Your task to perform on an android device: uninstall "WhatsApp Messenger" Image 0: 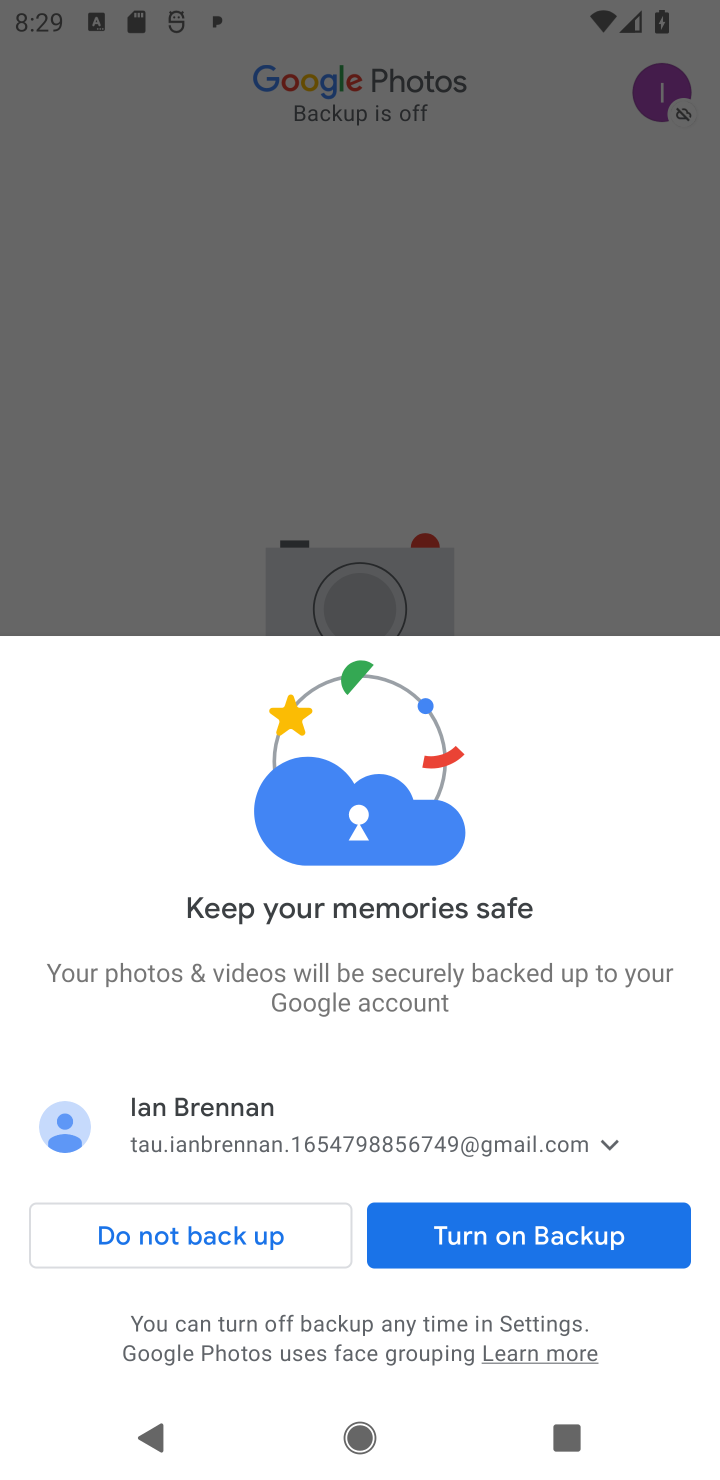
Step 0: press home button
Your task to perform on an android device: uninstall "WhatsApp Messenger" Image 1: 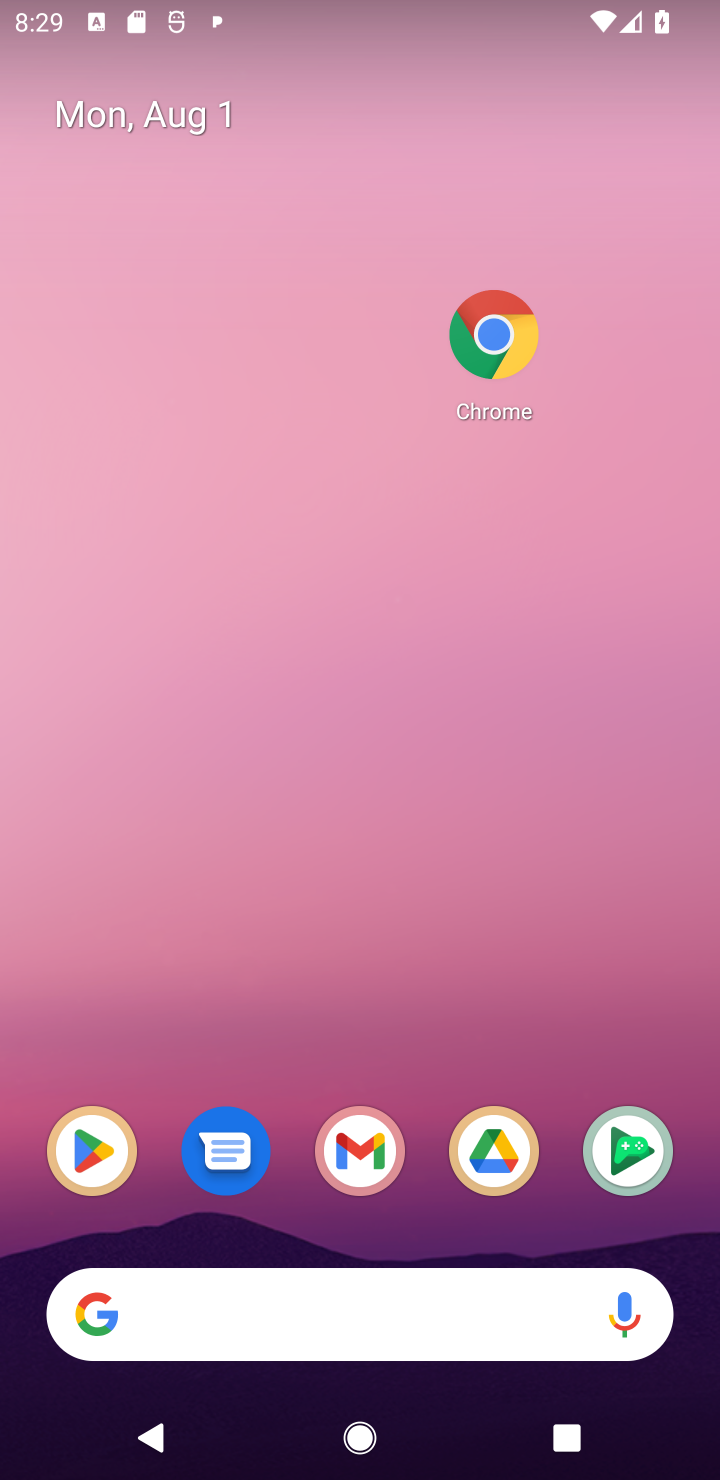
Step 1: click (95, 1163)
Your task to perform on an android device: uninstall "WhatsApp Messenger" Image 2: 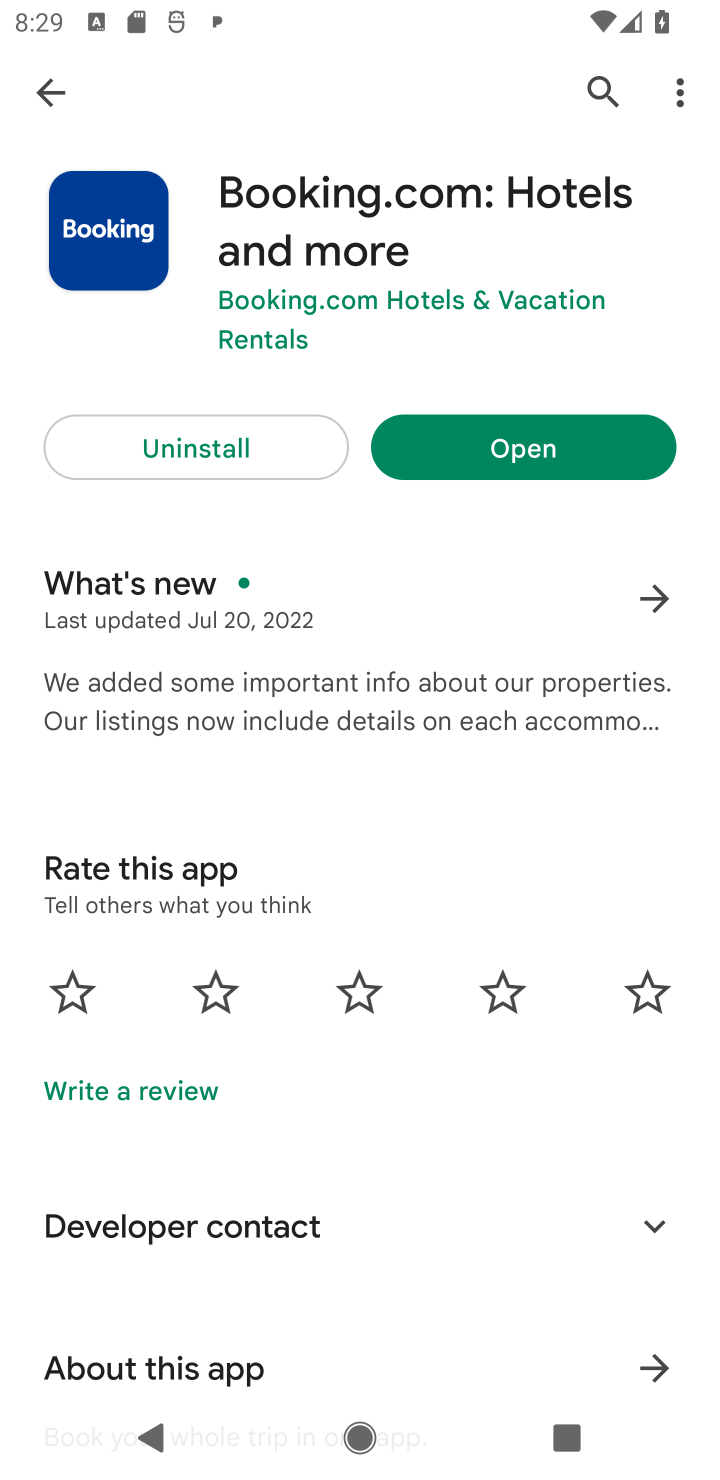
Step 2: click (590, 84)
Your task to perform on an android device: uninstall "WhatsApp Messenger" Image 3: 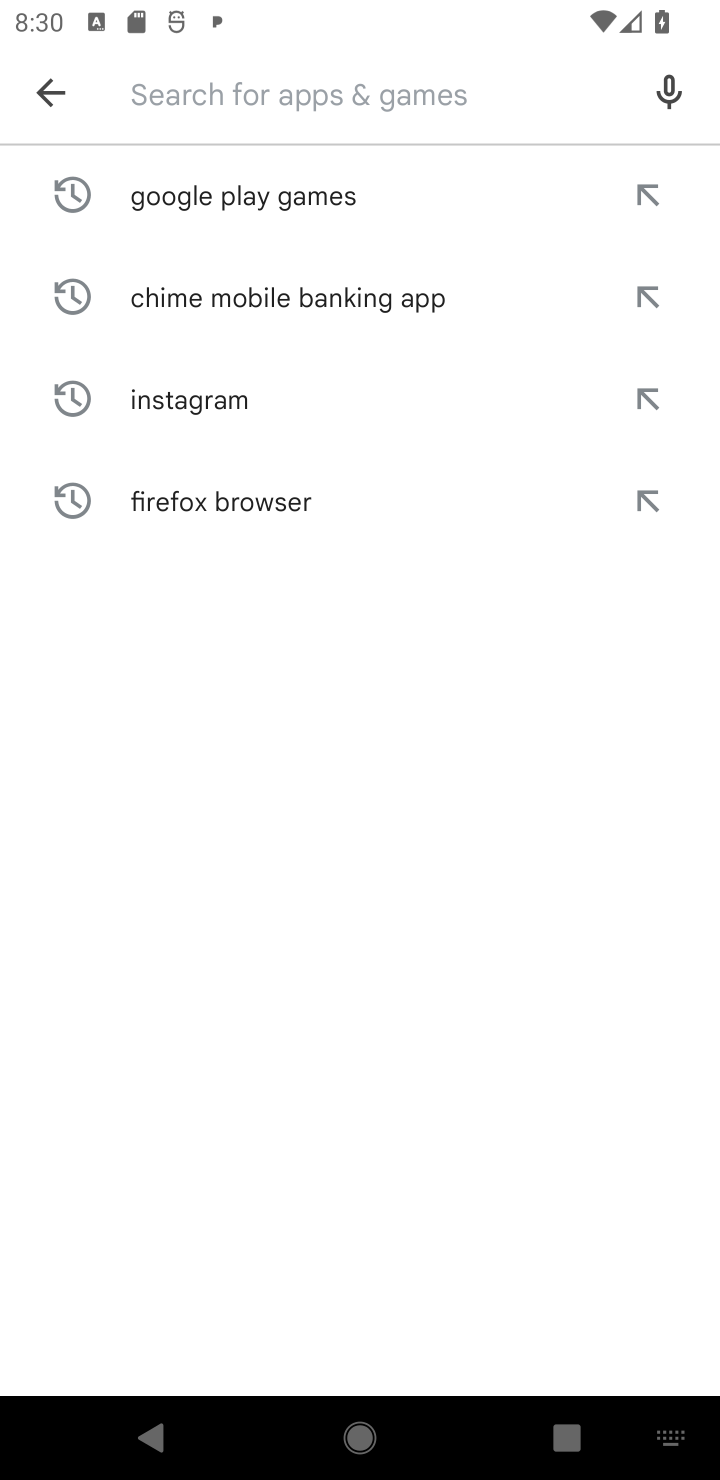
Step 3: type "WhatsApp Messenger"
Your task to perform on an android device: uninstall "WhatsApp Messenger" Image 4: 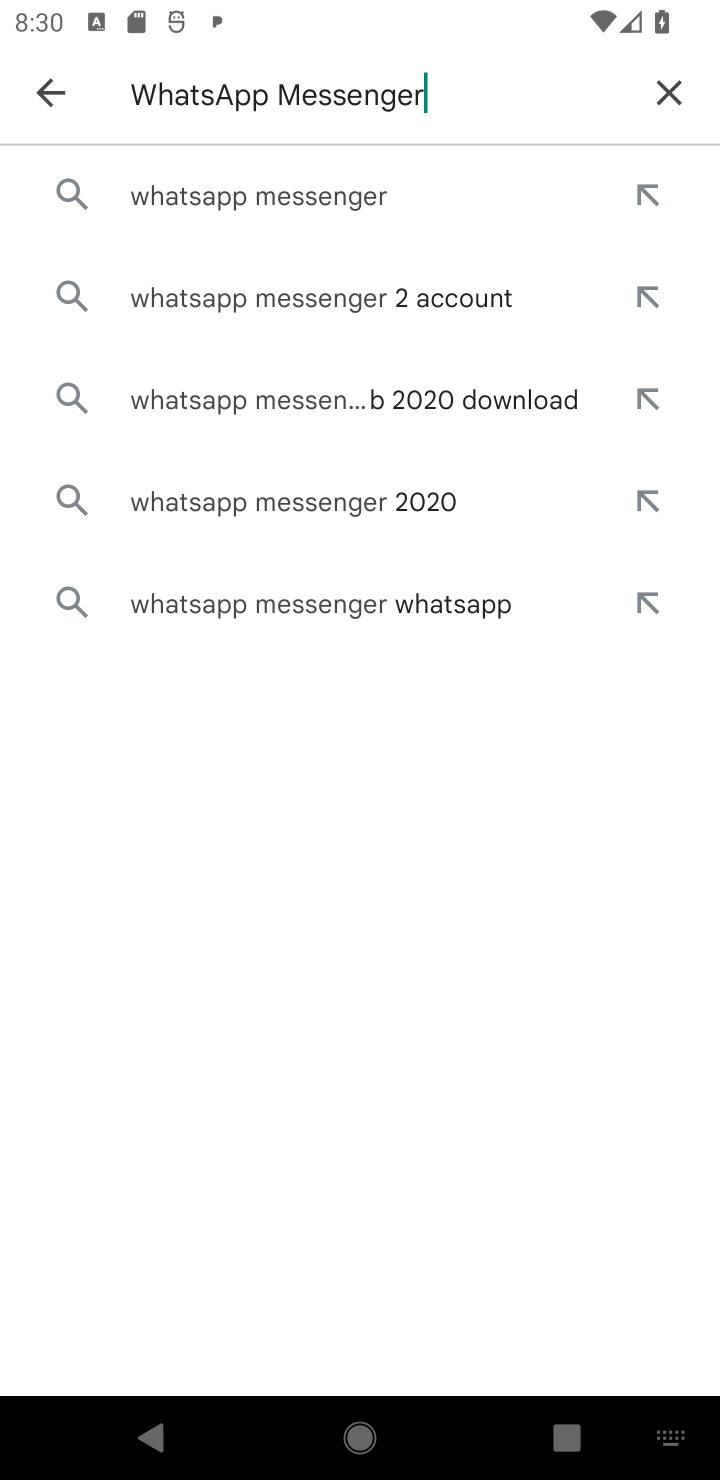
Step 4: click (264, 201)
Your task to perform on an android device: uninstall "WhatsApp Messenger" Image 5: 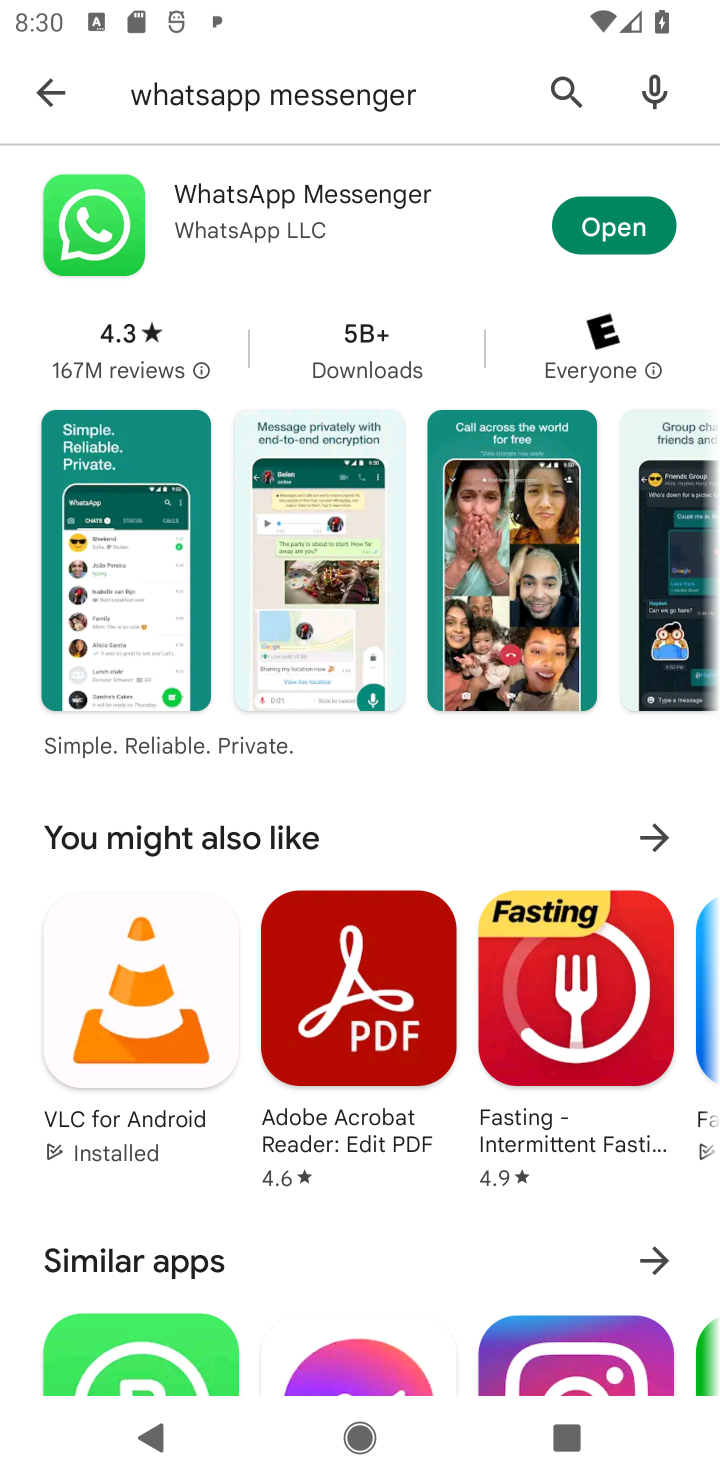
Step 5: click (179, 207)
Your task to perform on an android device: uninstall "WhatsApp Messenger" Image 6: 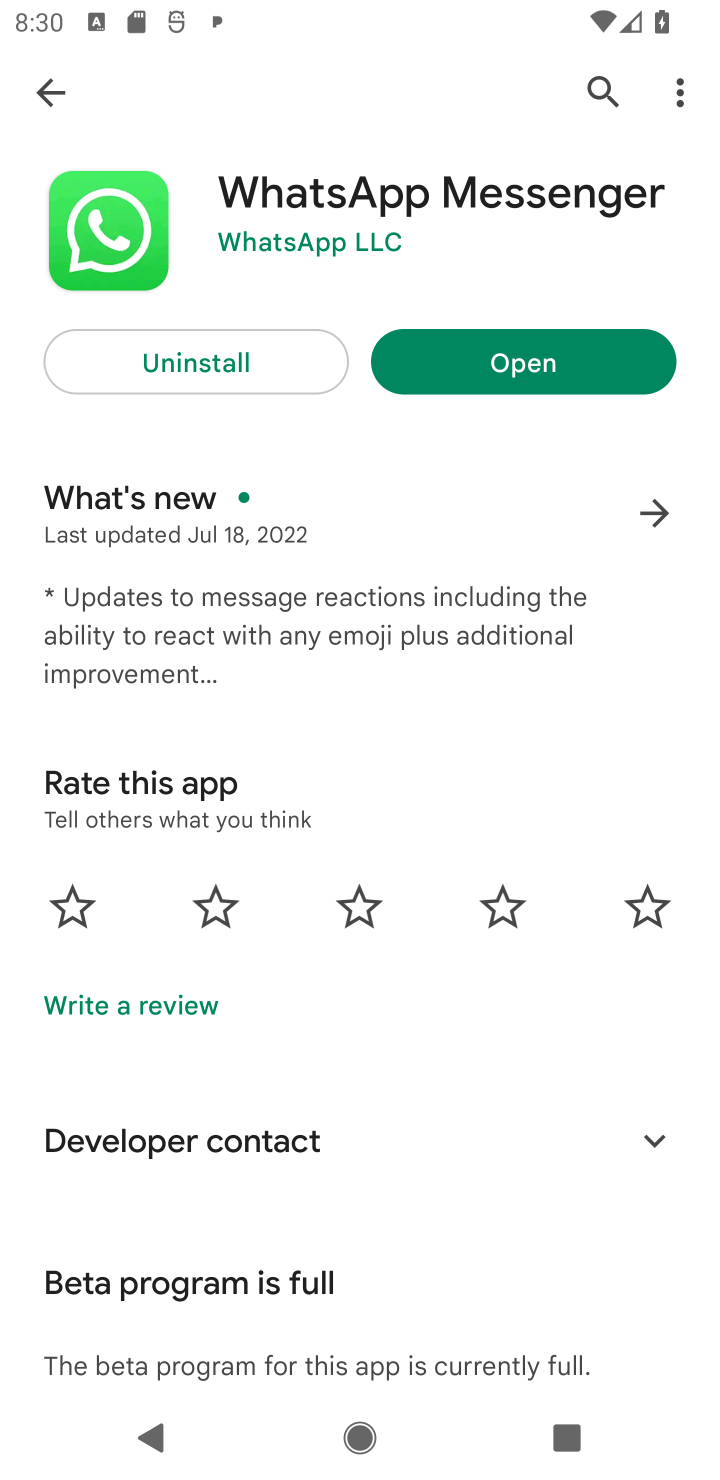
Step 6: click (194, 368)
Your task to perform on an android device: uninstall "WhatsApp Messenger" Image 7: 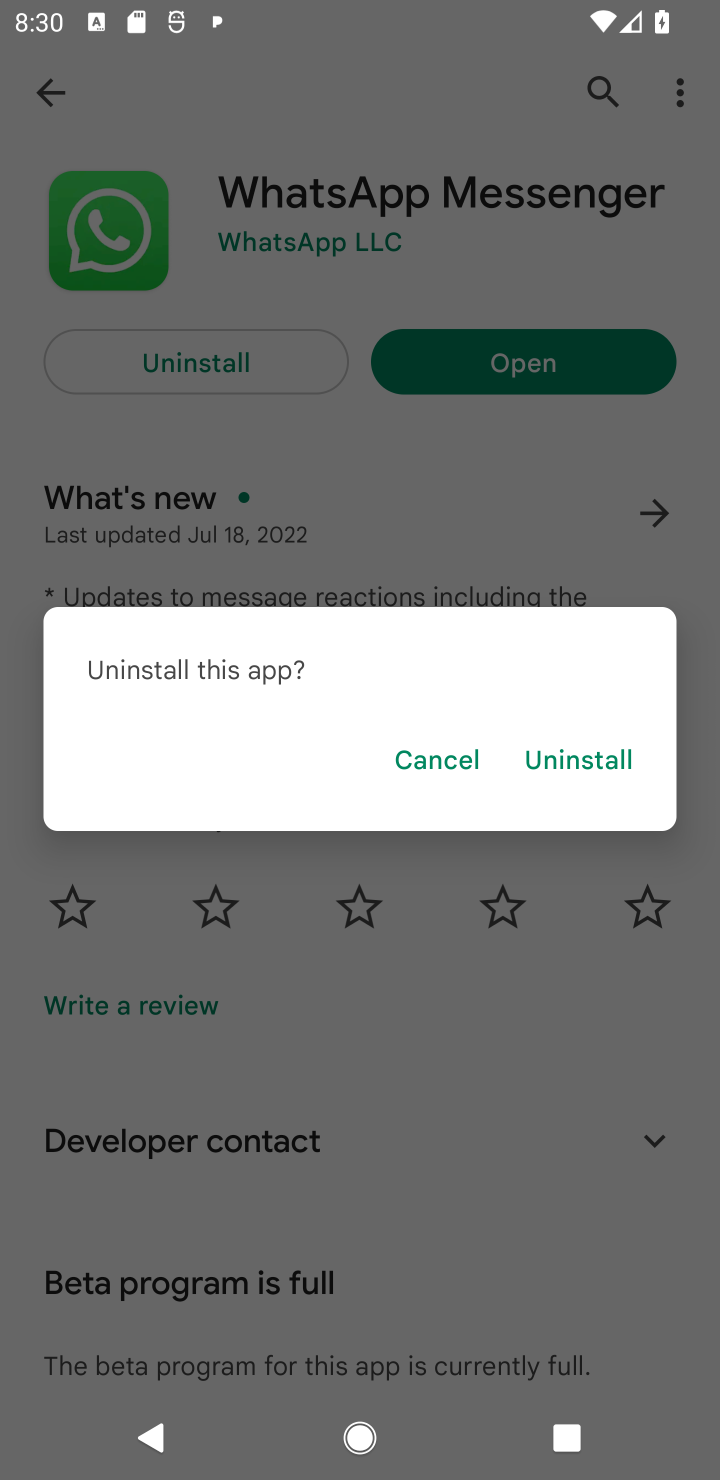
Step 7: click (542, 760)
Your task to perform on an android device: uninstall "WhatsApp Messenger" Image 8: 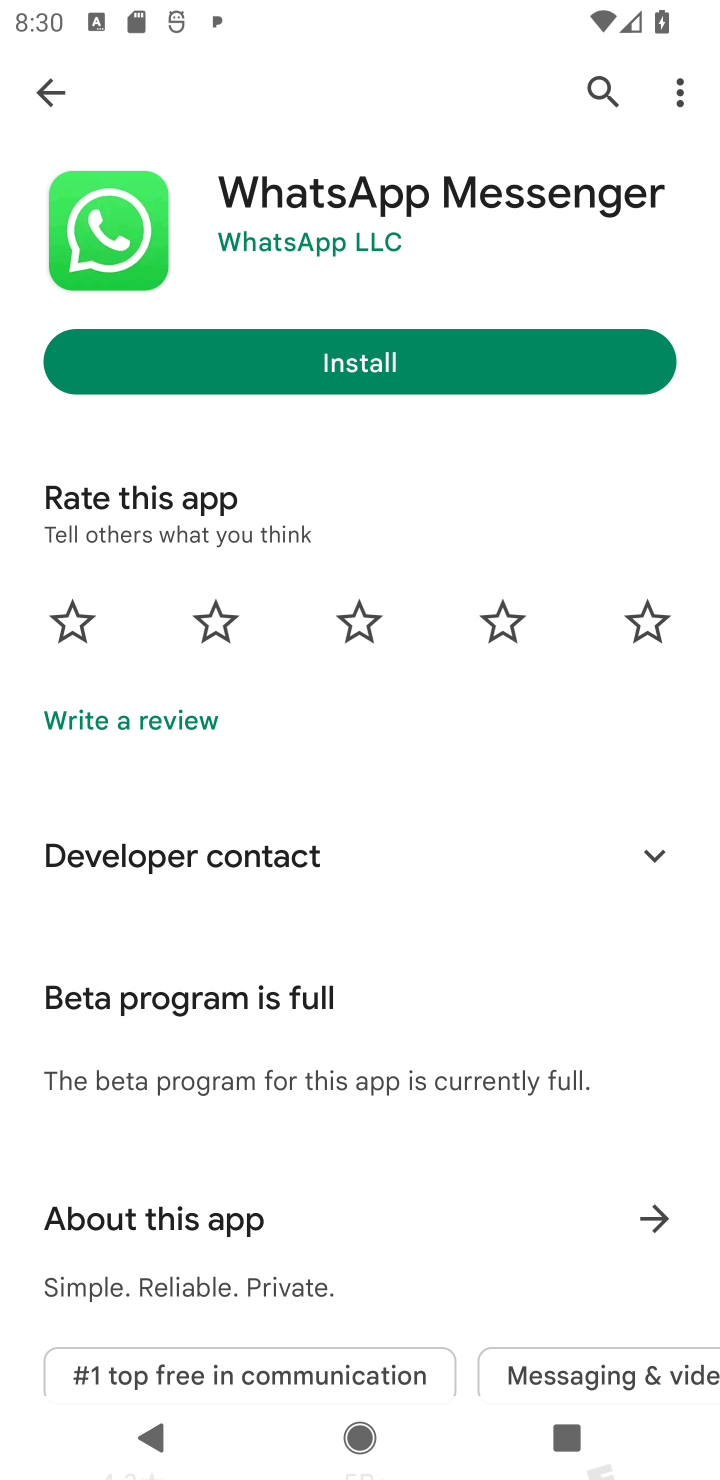
Step 8: task complete